Your task to perform on an android device: turn vacation reply on in the gmail app Image 0: 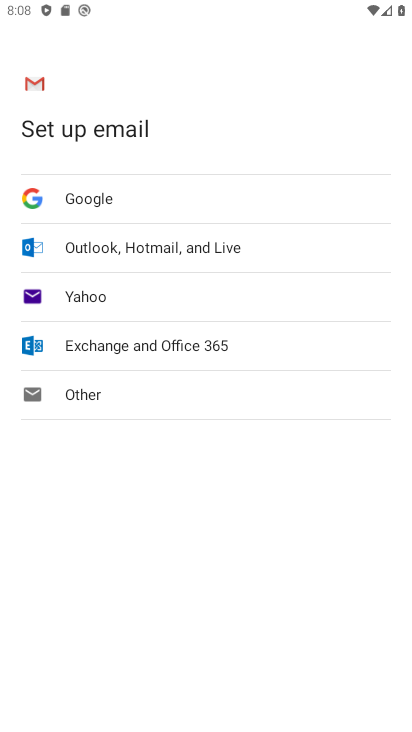
Step 0: press home button
Your task to perform on an android device: turn vacation reply on in the gmail app Image 1: 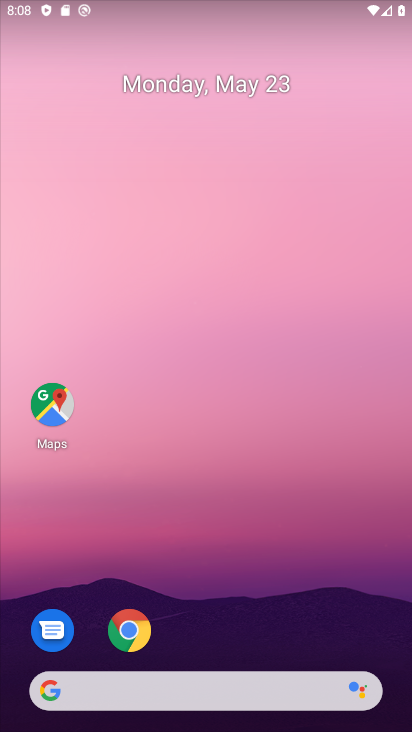
Step 1: drag from (224, 607) to (183, 172)
Your task to perform on an android device: turn vacation reply on in the gmail app Image 2: 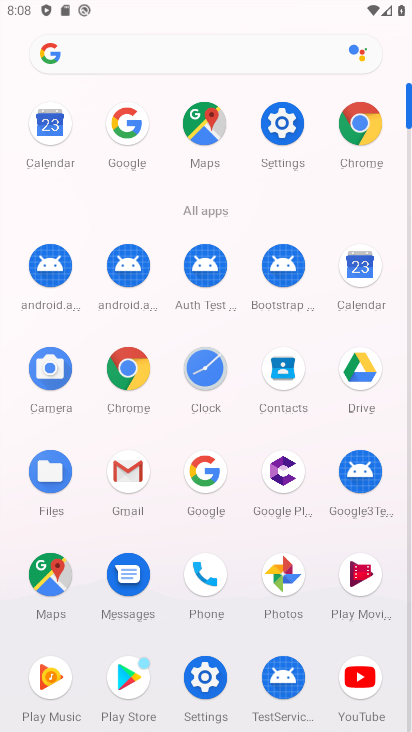
Step 2: click (141, 472)
Your task to perform on an android device: turn vacation reply on in the gmail app Image 3: 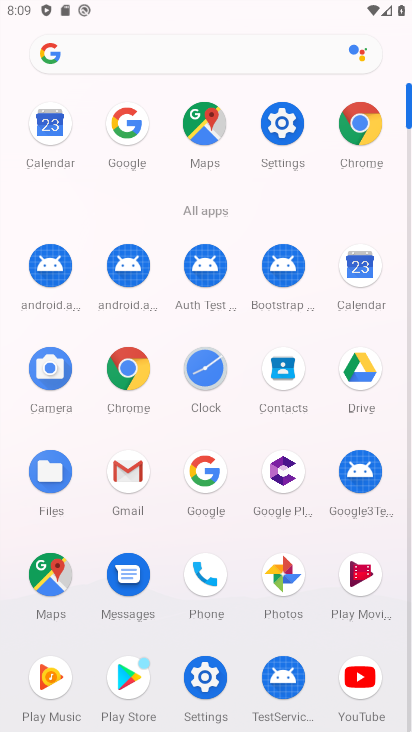
Step 3: drag from (290, 637) to (351, 280)
Your task to perform on an android device: turn vacation reply on in the gmail app Image 4: 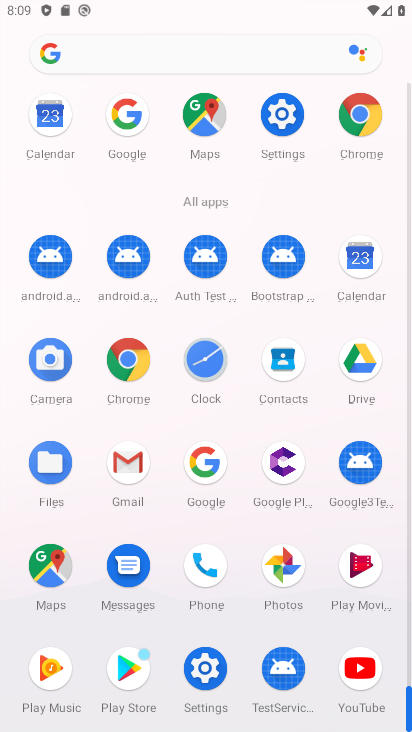
Step 4: click (127, 472)
Your task to perform on an android device: turn vacation reply on in the gmail app Image 5: 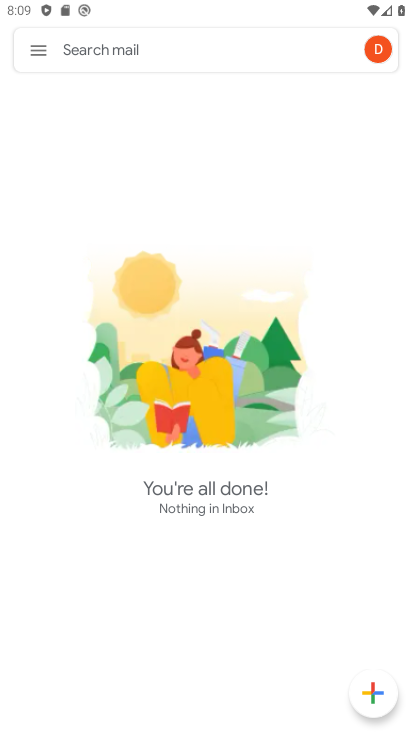
Step 5: click (33, 60)
Your task to perform on an android device: turn vacation reply on in the gmail app Image 6: 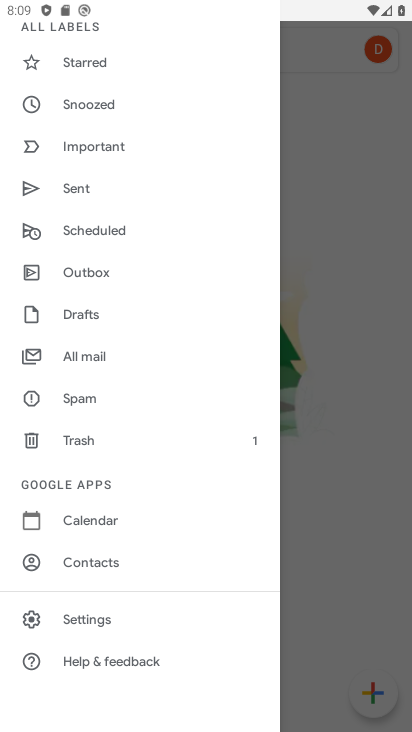
Step 6: click (104, 611)
Your task to perform on an android device: turn vacation reply on in the gmail app Image 7: 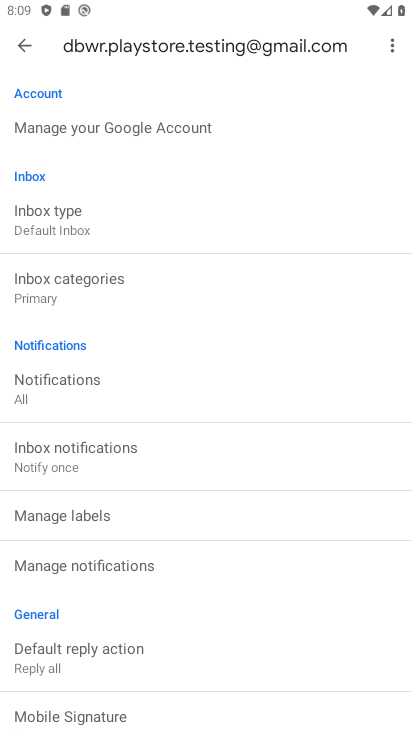
Step 7: drag from (116, 631) to (160, 392)
Your task to perform on an android device: turn vacation reply on in the gmail app Image 8: 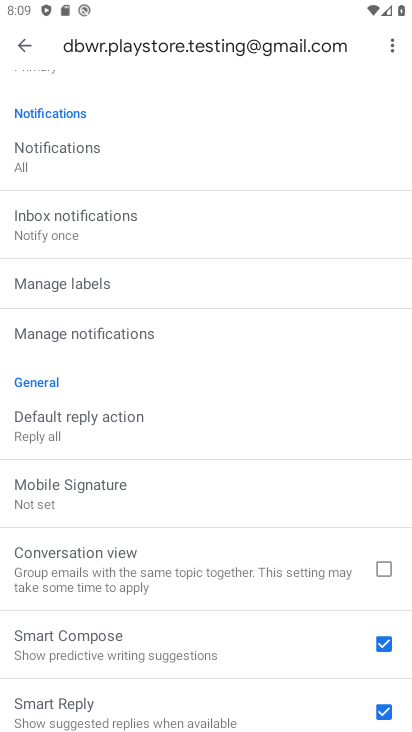
Step 8: drag from (176, 709) to (227, 305)
Your task to perform on an android device: turn vacation reply on in the gmail app Image 9: 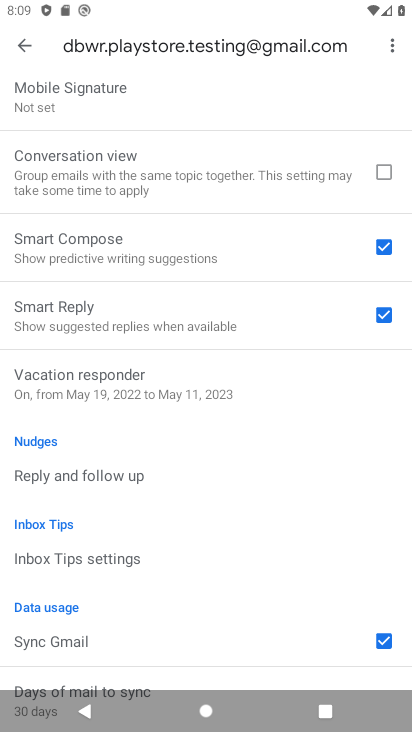
Step 9: drag from (185, 657) to (188, 351)
Your task to perform on an android device: turn vacation reply on in the gmail app Image 10: 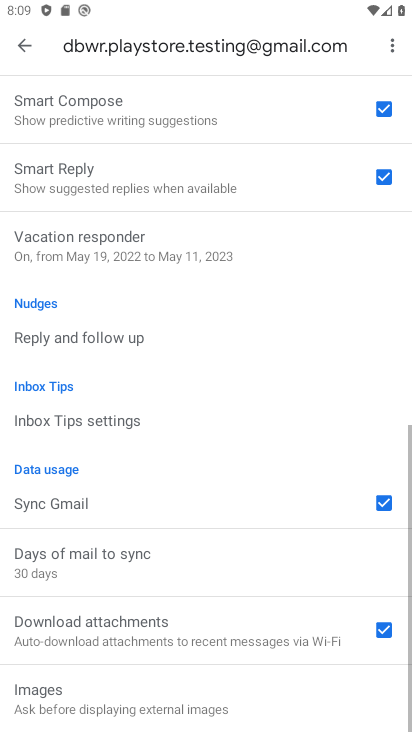
Step 10: click (83, 388)
Your task to perform on an android device: turn vacation reply on in the gmail app Image 11: 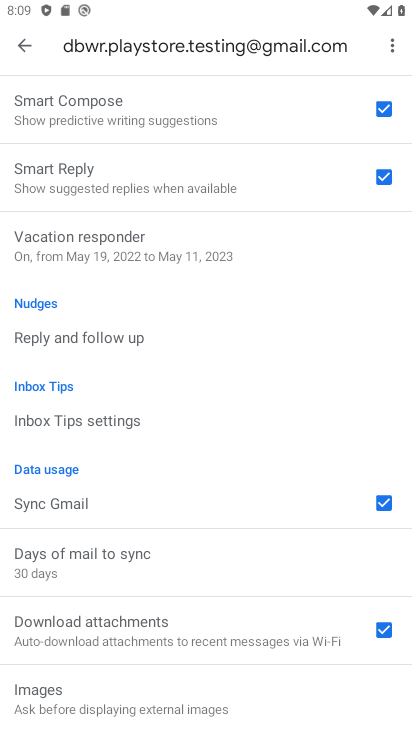
Step 11: click (117, 248)
Your task to perform on an android device: turn vacation reply on in the gmail app Image 12: 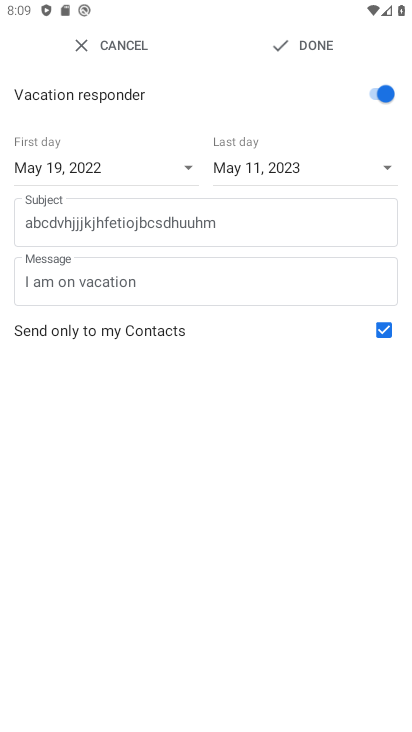
Step 12: task complete